Your task to perform on an android device: toggle location history Image 0: 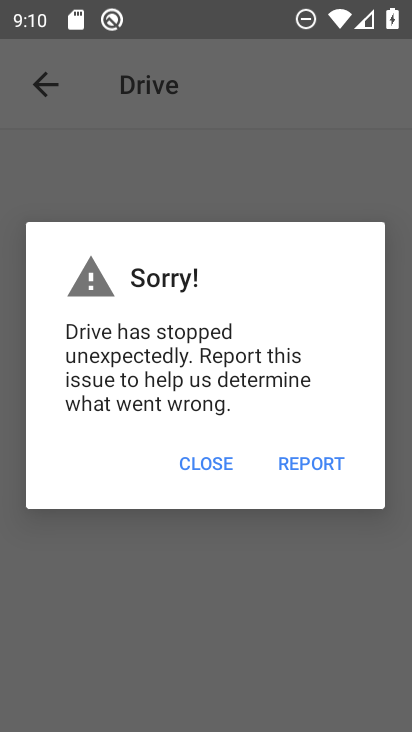
Step 0: press home button
Your task to perform on an android device: toggle location history Image 1: 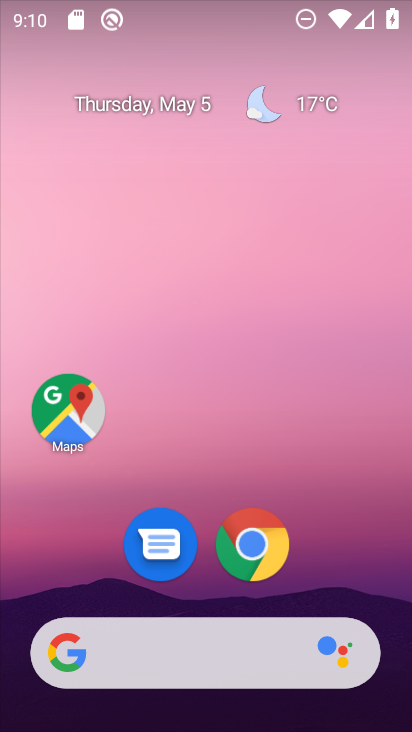
Step 1: drag from (392, 642) to (307, 59)
Your task to perform on an android device: toggle location history Image 2: 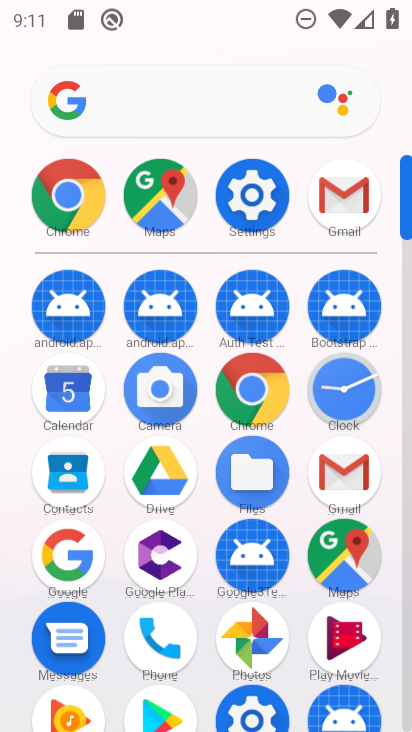
Step 2: click (249, 192)
Your task to perform on an android device: toggle location history Image 3: 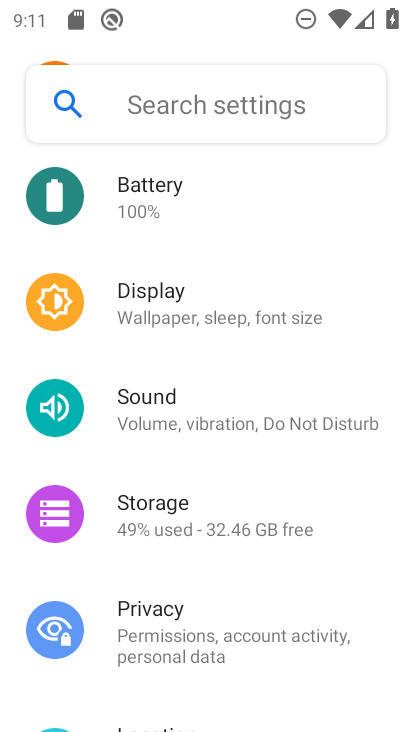
Step 3: drag from (112, 661) to (172, 430)
Your task to perform on an android device: toggle location history Image 4: 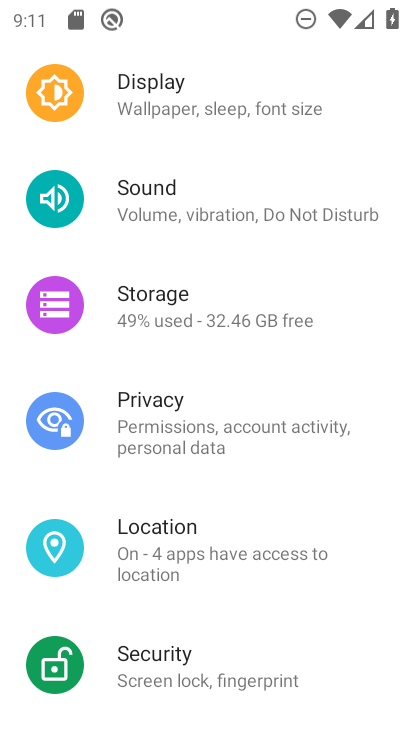
Step 4: click (184, 540)
Your task to perform on an android device: toggle location history Image 5: 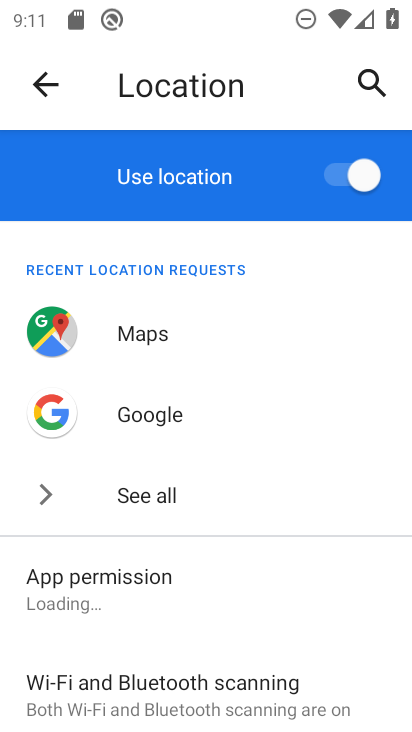
Step 5: drag from (197, 707) to (217, 425)
Your task to perform on an android device: toggle location history Image 6: 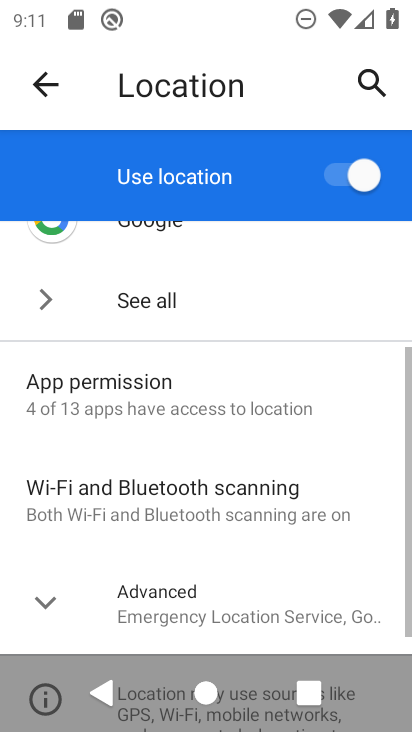
Step 6: click (195, 615)
Your task to perform on an android device: toggle location history Image 7: 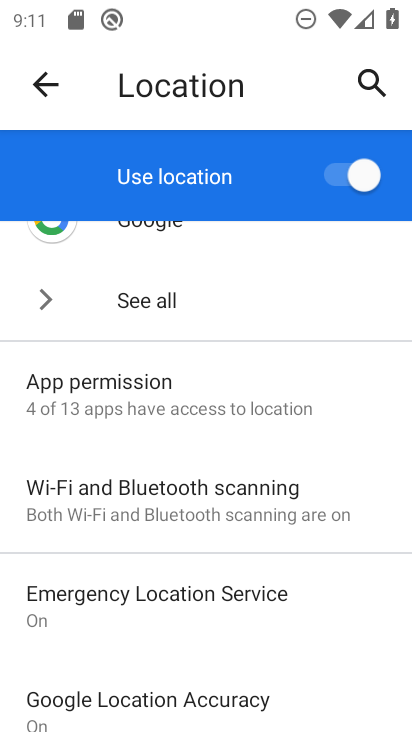
Step 7: drag from (230, 614) to (199, 458)
Your task to perform on an android device: toggle location history Image 8: 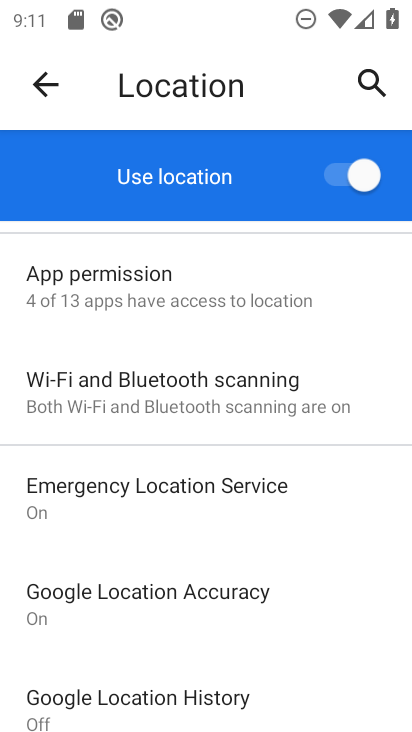
Step 8: click (193, 691)
Your task to perform on an android device: toggle location history Image 9: 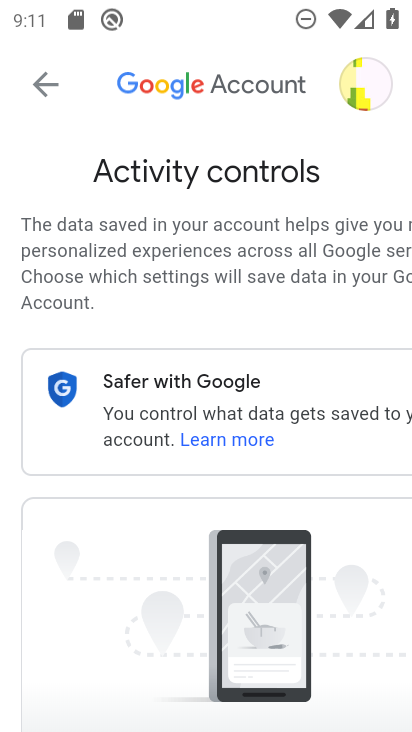
Step 9: drag from (390, 663) to (249, 159)
Your task to perform on an android device: toggle location history Image 10: 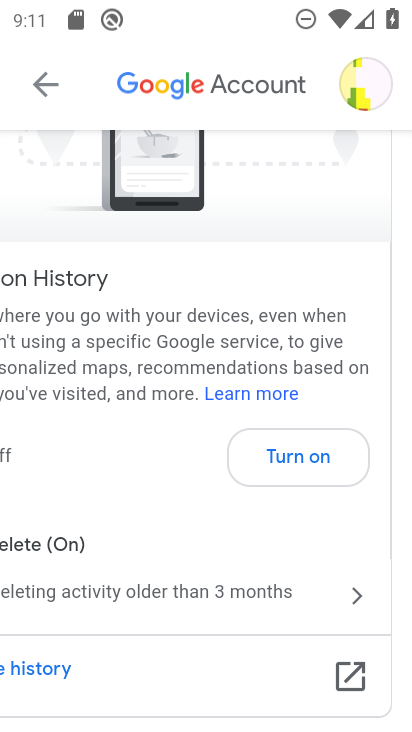
Step 10: click (292, 456)
Your task to perform on an android device: toggle location history Image 11: 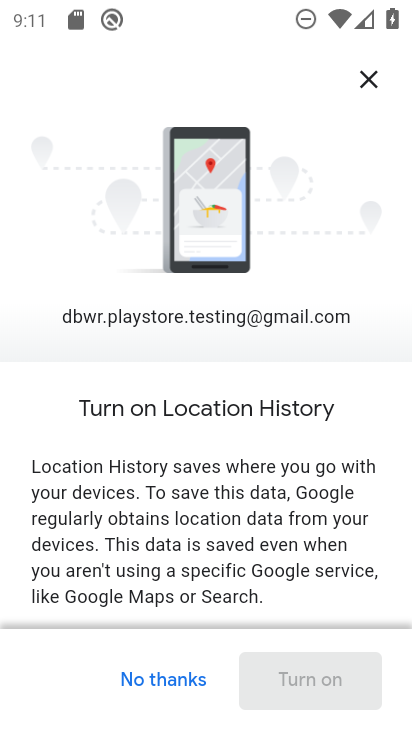
Step 11: task complete